Your task to perform on an android device: toggle sleep mode Image 0: 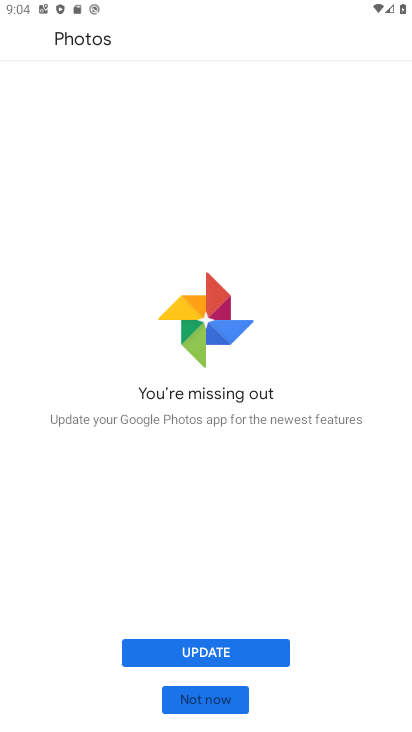
Step 0: press home button
Your task to perform on an android device: toggle sleep mode Image 1: 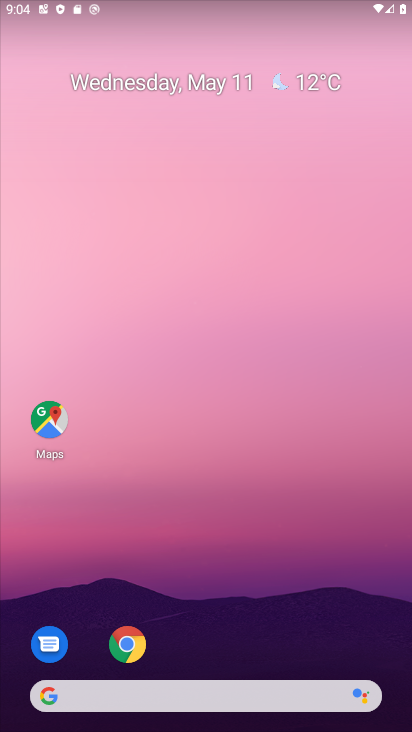
Step 1: drag from (194, 637) to (154, 278)
Your task to perform on an android device: toggle sleep mode Image 2: 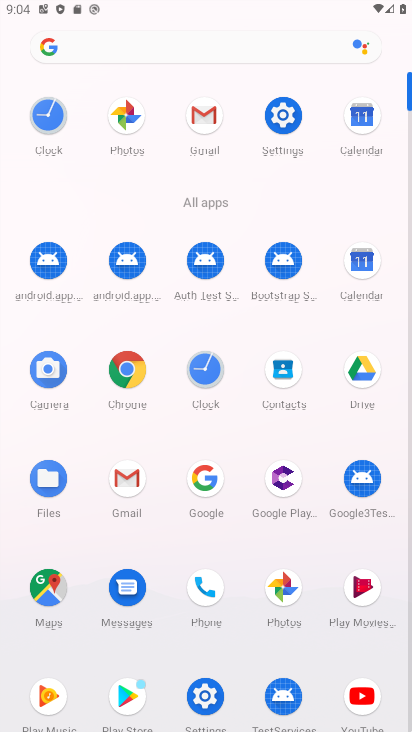
Step 2: click (199, 709)
Your task to perform on an android device: toggle sleep mode Image 3: 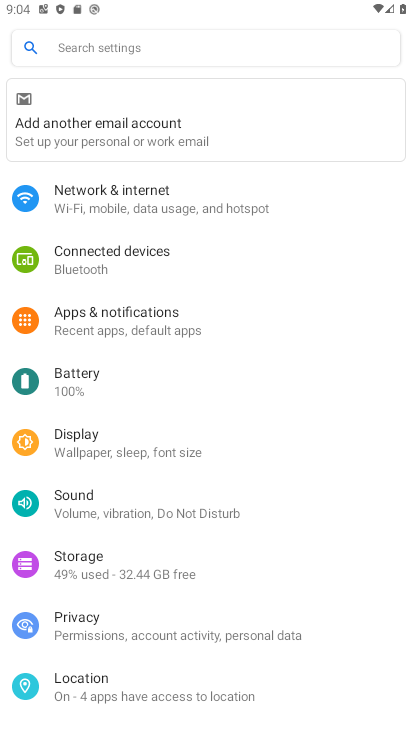
Step 3: click (173, 456)
Your task to perform on an android device: toggle sleep mode Image 4: 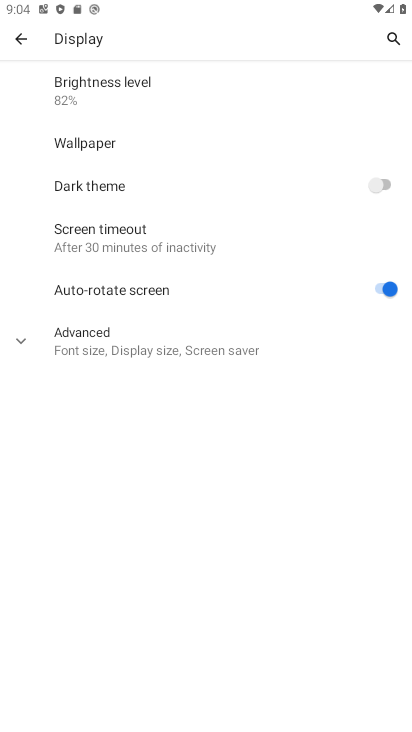
Step 4: click (149, 348)
Your task to perform on an android device: toggle sleep mode Image 5: 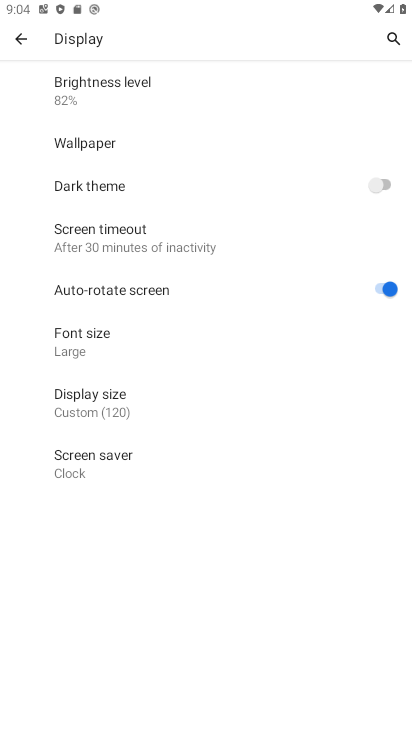
Step 5: task complete